Your task to perform on an android device: Open calendar and show me the first week of next month Image 0: 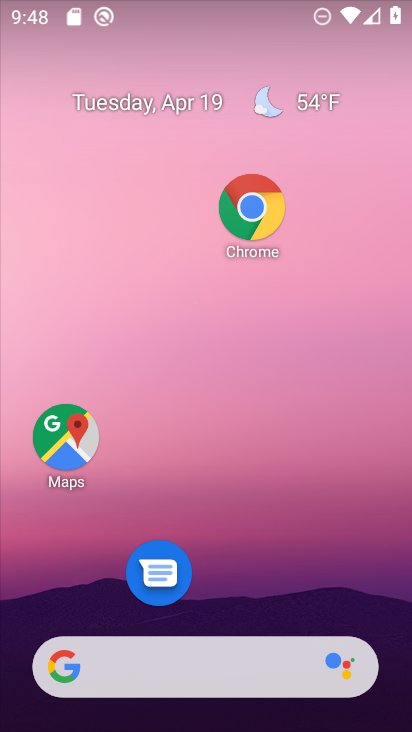
Step 0: drag from (215, 651) to (284, 201)
Your task to perform on an android device: Open calendar and show me the first week of next month Image 1: 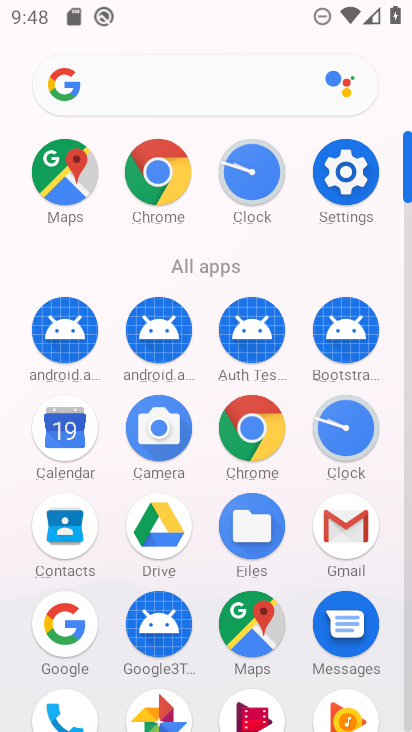
Step 1: click (72, 431)
Your task to perform on an android device: Open calendar and show me the first week of next month Image 2: 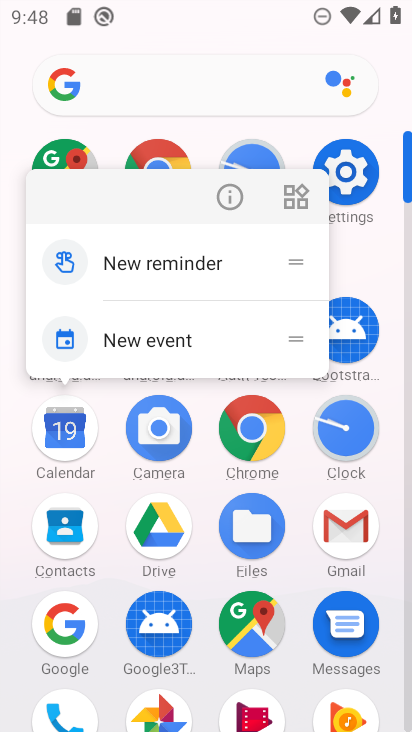
Step 2: click (75, 429)
Your task to perform on an android device: Open calendar and show me the first week of next month Image 3: 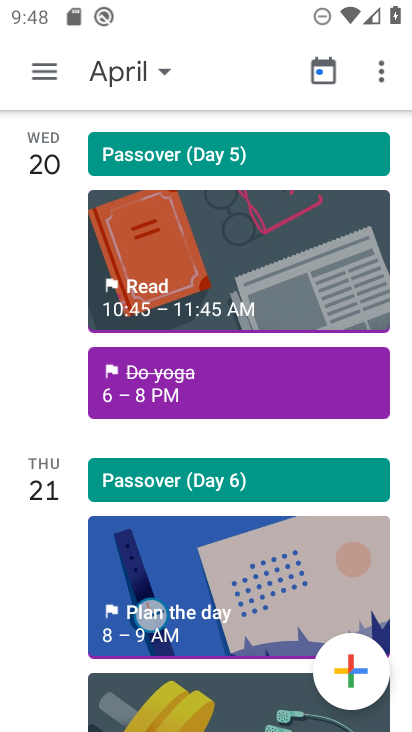
Step 3: click (143, 74)
Your task to perform on an android device: Open calendar and show me the first week of next month Image 4: 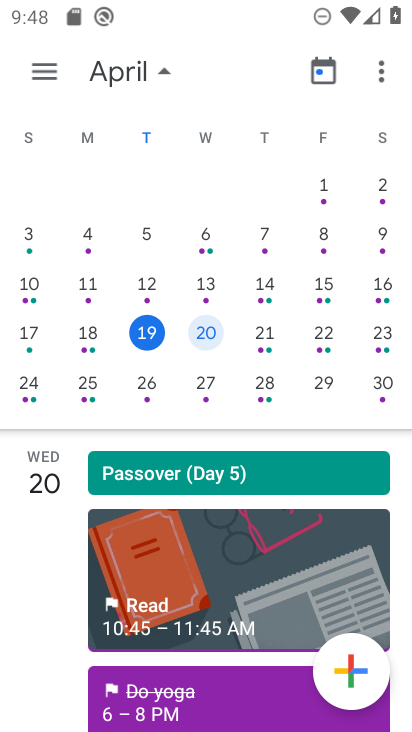
Step 4: drag from (393, 304) to (6, 313)
Your task to perform on an android device: Open calendar and show me the first week of next month Image 5: 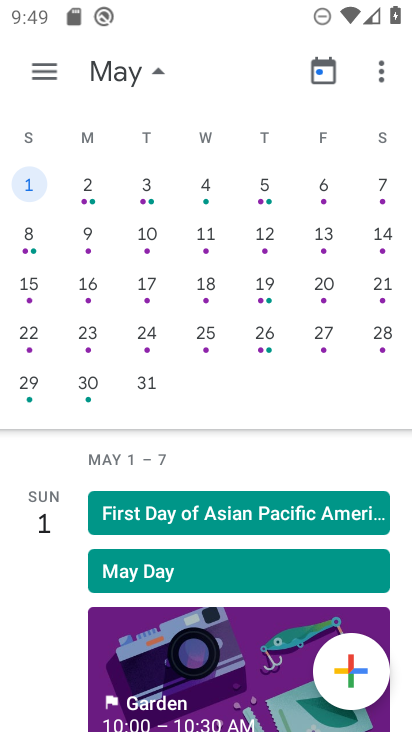
Step 5: click (35, 174)
Your task to perform on an android device: Open calendar and show me the first week of next month Image 6: 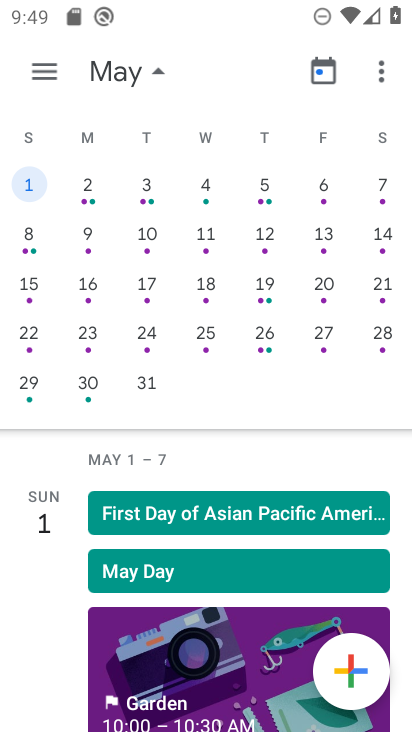
Step 6: task complete